Your task to perform on an android device: show emergency info Image 0: 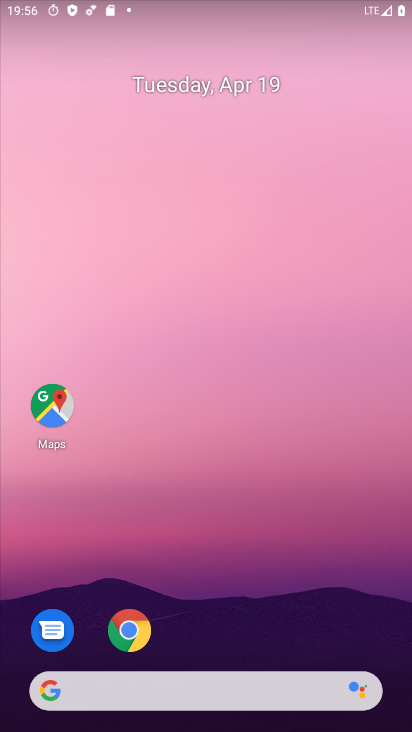
Step 0: drag from (215, 659) to (230, 83)
Your task to perform on an android device: show emergency info Image 1: 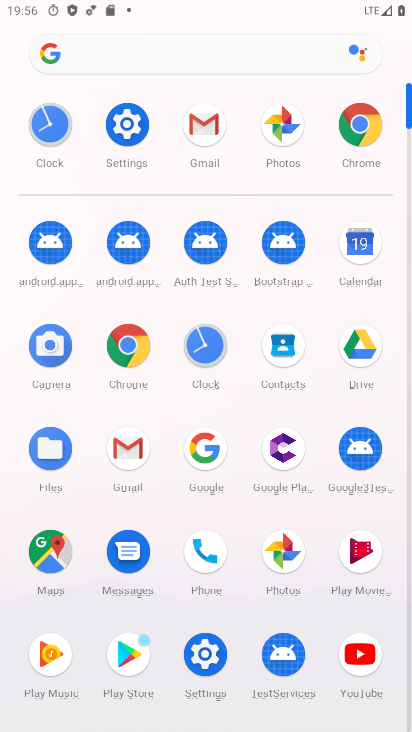
Step 1: click (132, 121)
Your task to perform on an android device: show emergency info Image 2: 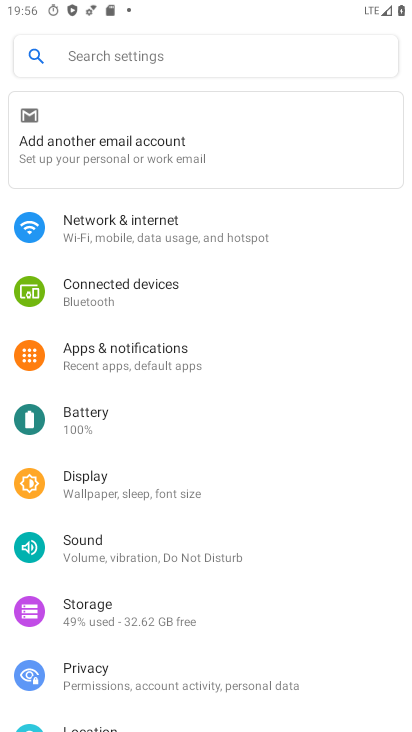
Step 2: drag from (211, 647) to (173, 70)
Your task to perform on an android device: show emergency info Image 3: 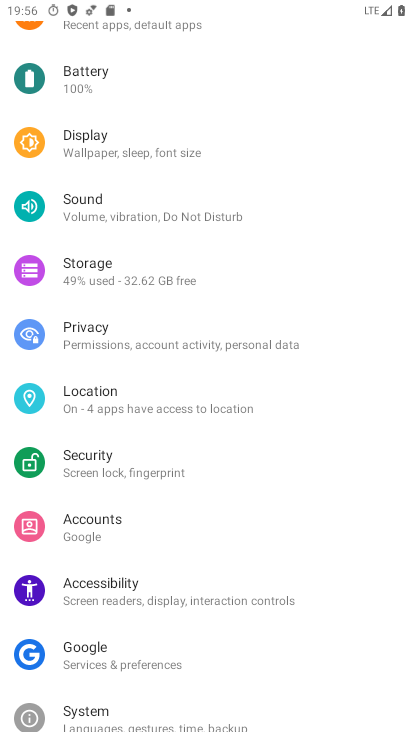
Step 3: drag from (216, 658) to (201, 63)
Your task to perform on an android device: show emergency info Image 4: 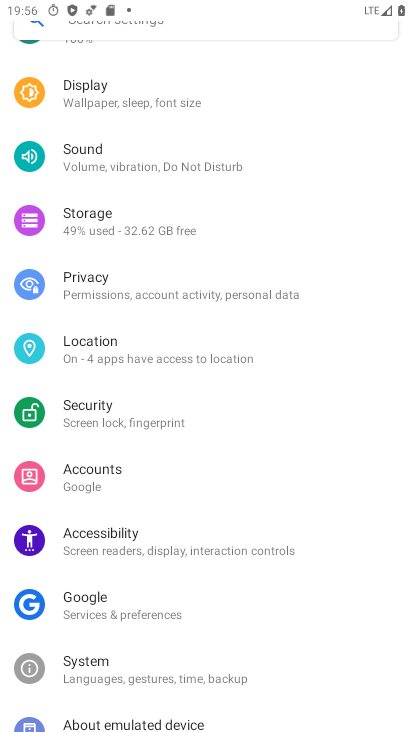
Step 4: click (171, 706)
Your task to perform on an android device: show emergency info Image 5: 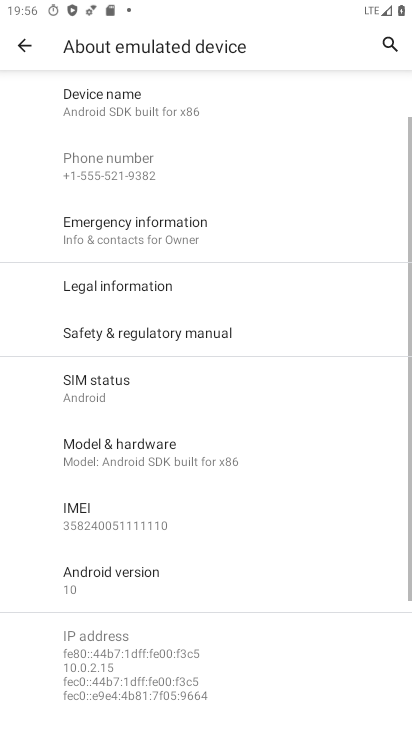
Step 5: click (139, 240)
Your task to perform on an android device: show emergency info Image 6: 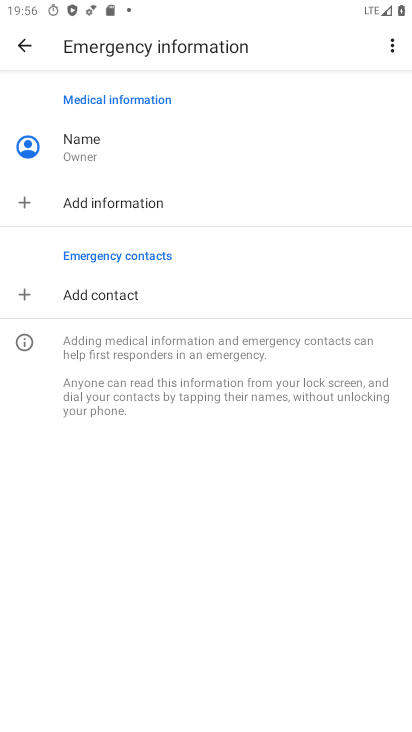
Step 6: task complete